Your task to perform on an android device: toggle data saver in the chrome app Image 0: 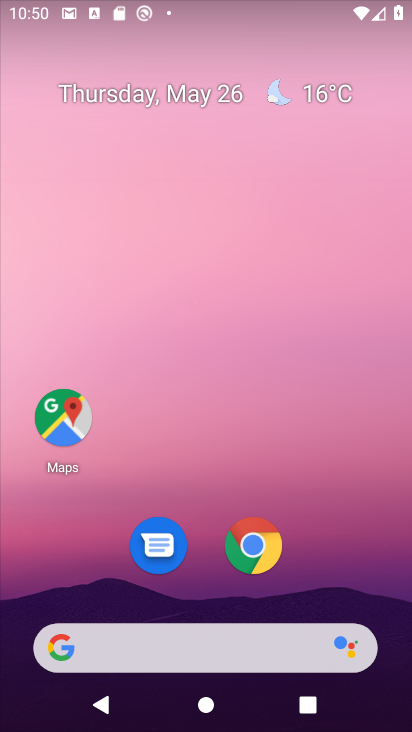
Step 0: press home button
Your task to perform on an android device: toggle data saver in the chrome app Image 1: 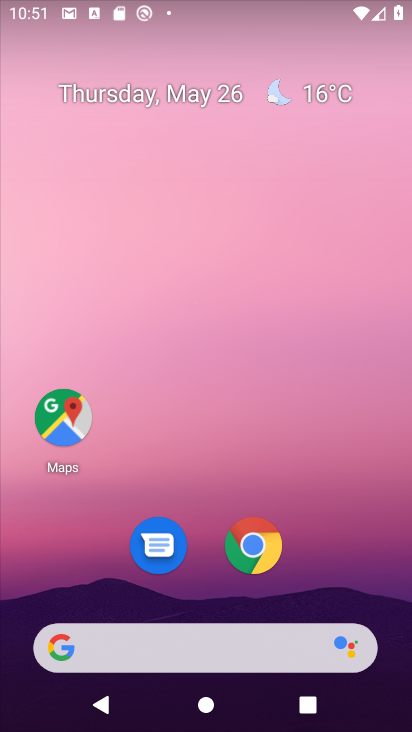
Step 1: click (263, 540)
Your task to perform on an android device: toggle data saver in the chrome app Image 2: 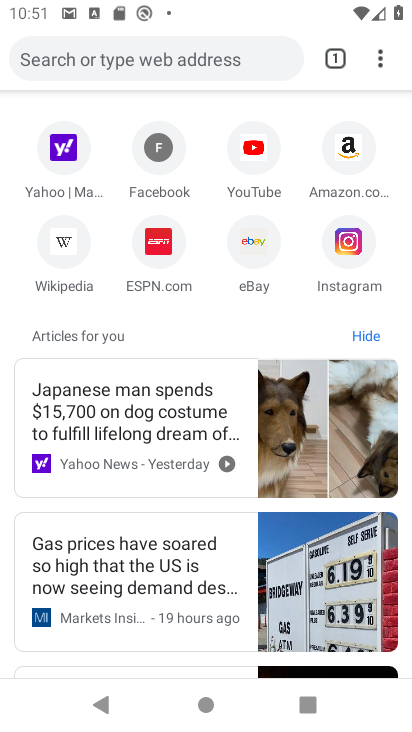
Step 2: drag from (389, 67) to (174, 496)
Your task to perform on an android device: toggle data saver in the chrome app Image 3: 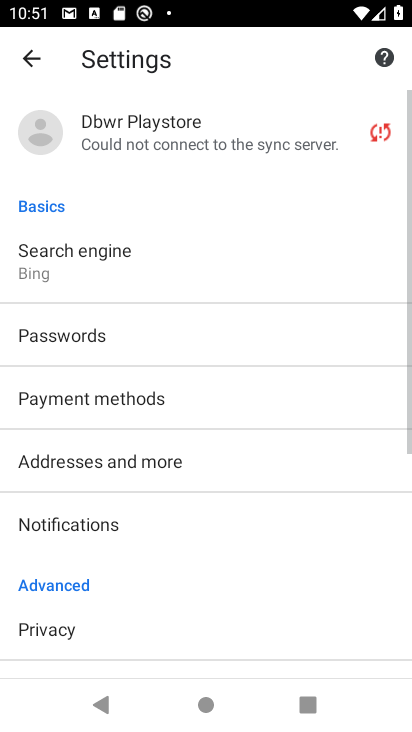
Step 3: drag from (181, 569) to (182, 211)
Your task to perform on an android device: toggle data saver in the chrome app Image 4: 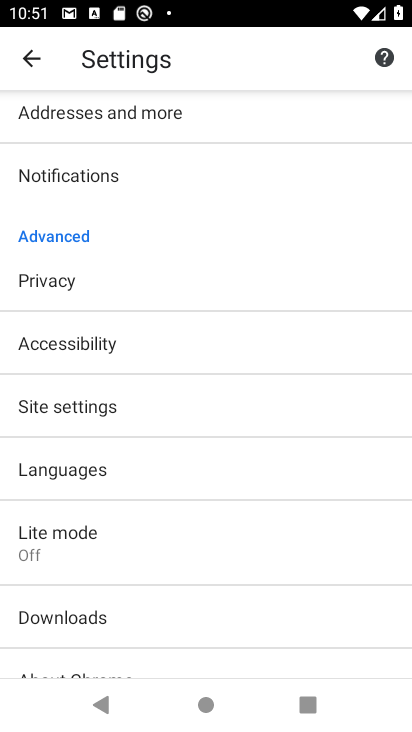
Step 4: click (52, 541)
Your task to perform on an android device: toggle data saver in the chrome app Image 5: 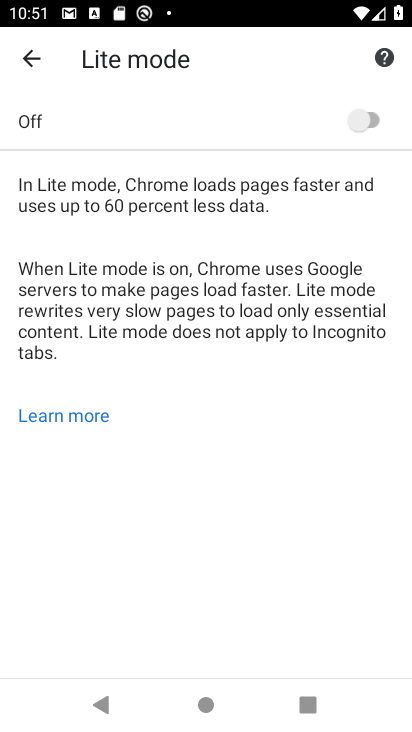
Step 5: click (368, 121)
Your task to perform on an android device: toggle data saver in the chrome app Image 6: 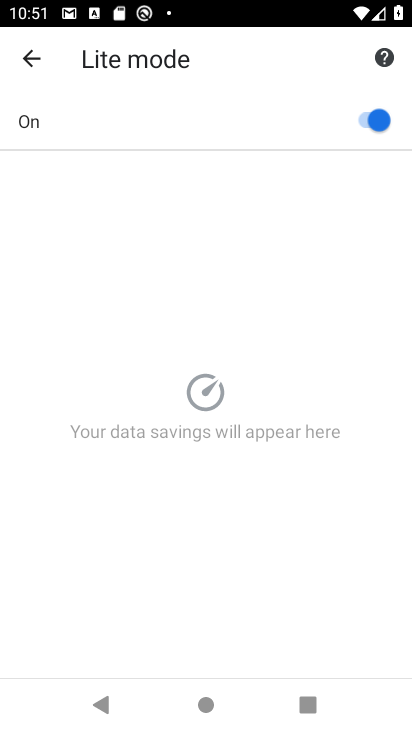
Step 6: task complete